Your task to perform on an android device: delete a single message in the gmail app Image 0: 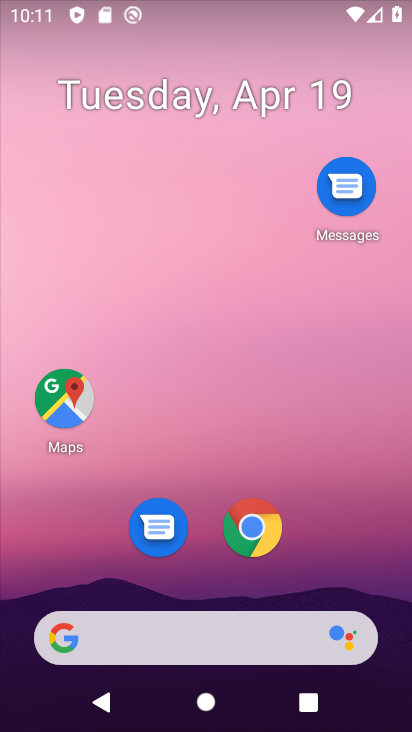
Step 0: drag from (331, 542) to (280, 162)
Your task to perform on an android device: delete a single message in the gmail app Image 1: 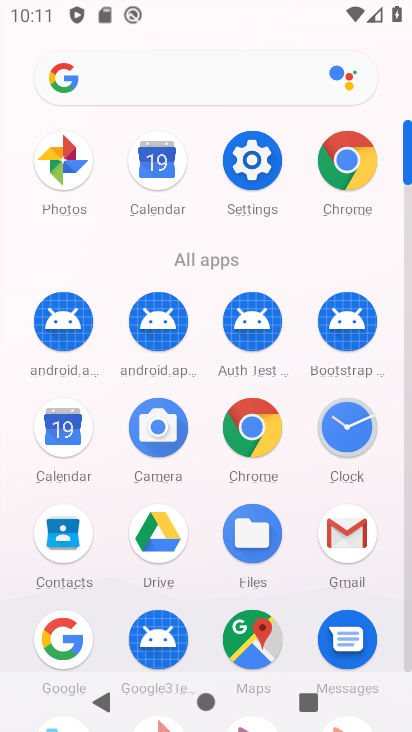
Step 1: click (346, 532)
Your task to perform on an android device: delete a single message in the gmail app Image 2: 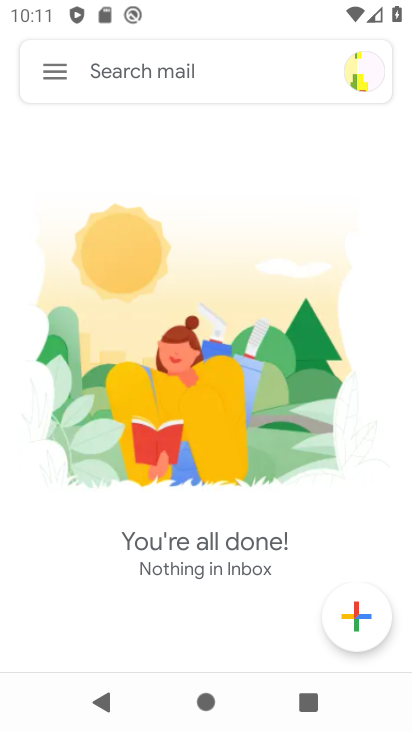
Step 2: task complete